Your task to perform on an android device: search for starred emails in the gmail app Image 0: 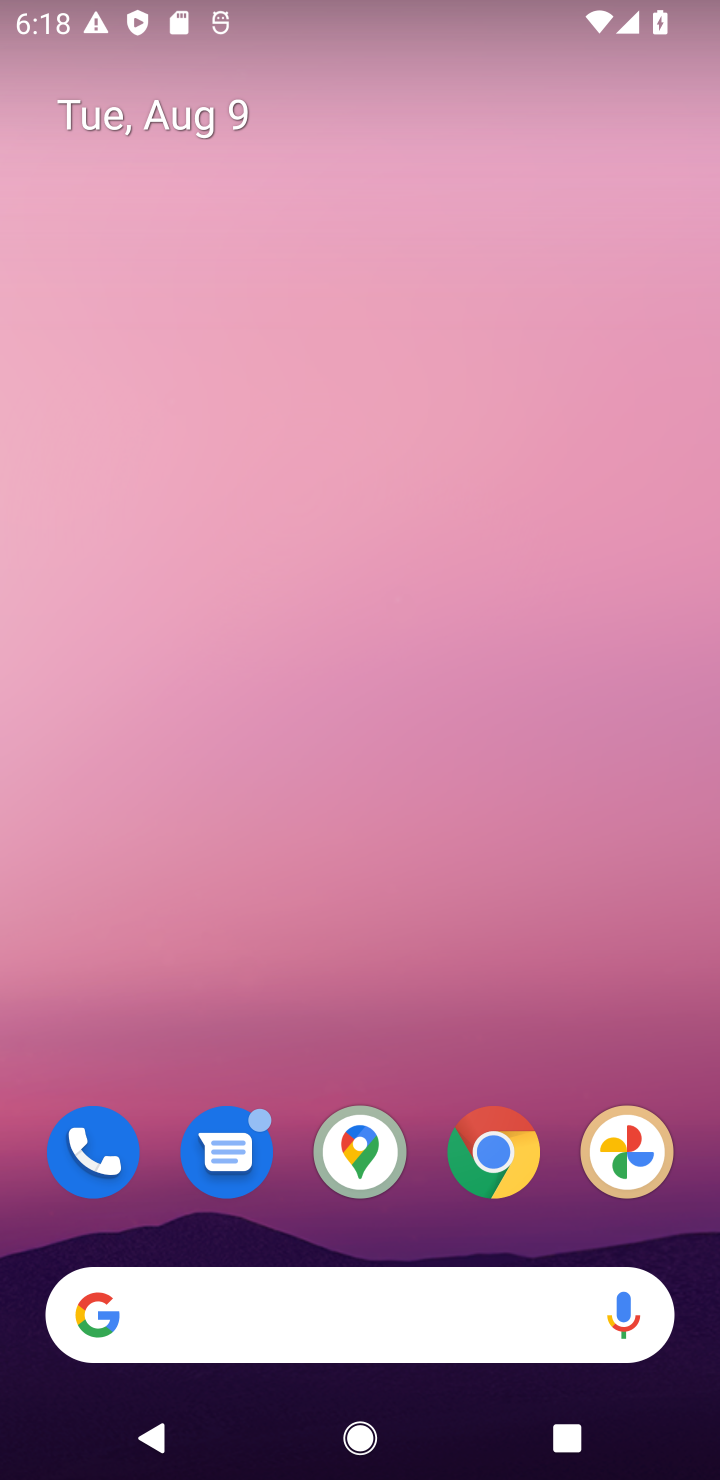
Step 0: drag from (412, 803) to (505, 6)
Your task to perform on an android device: search for starred emails in the gmail app Image 1: 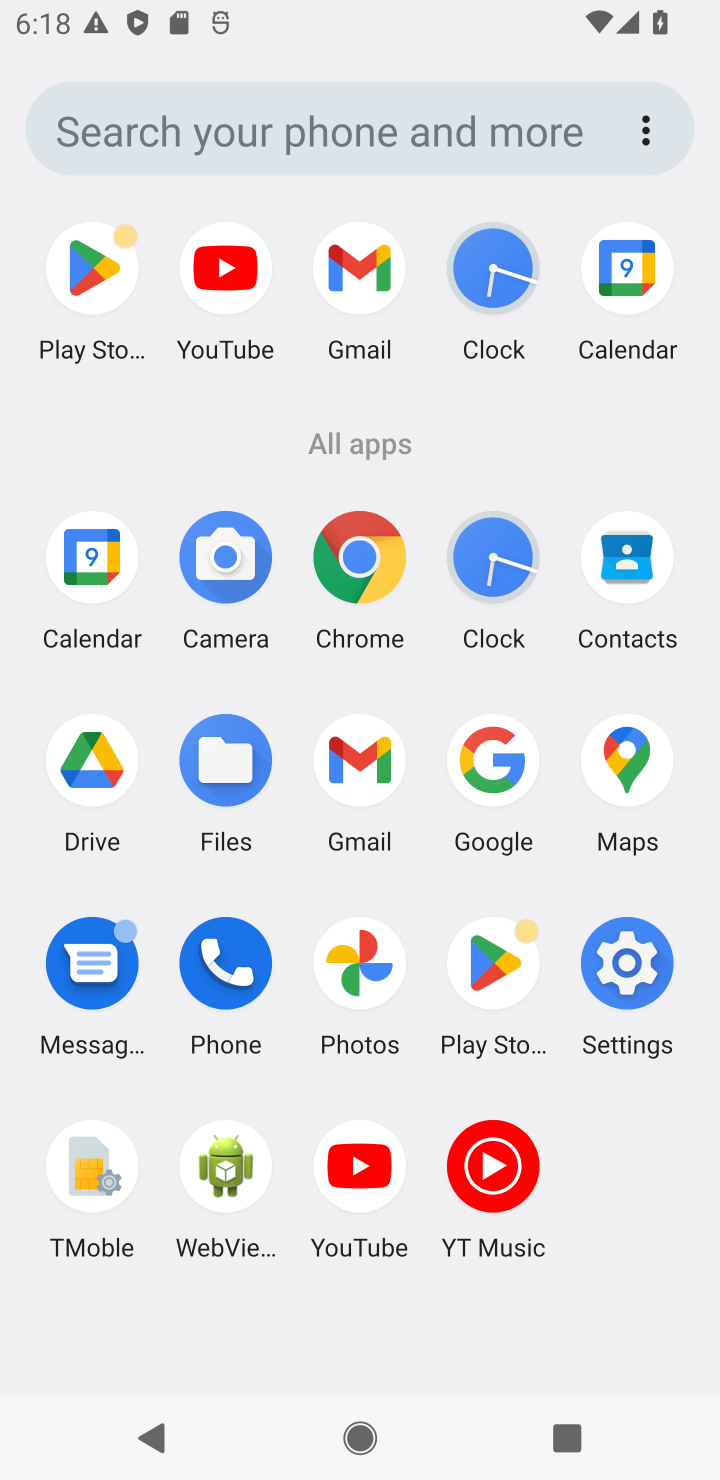
Step 1: click (381, 250)
Your task to perform on an android device: search for starred emails in the gmail app Image 2: 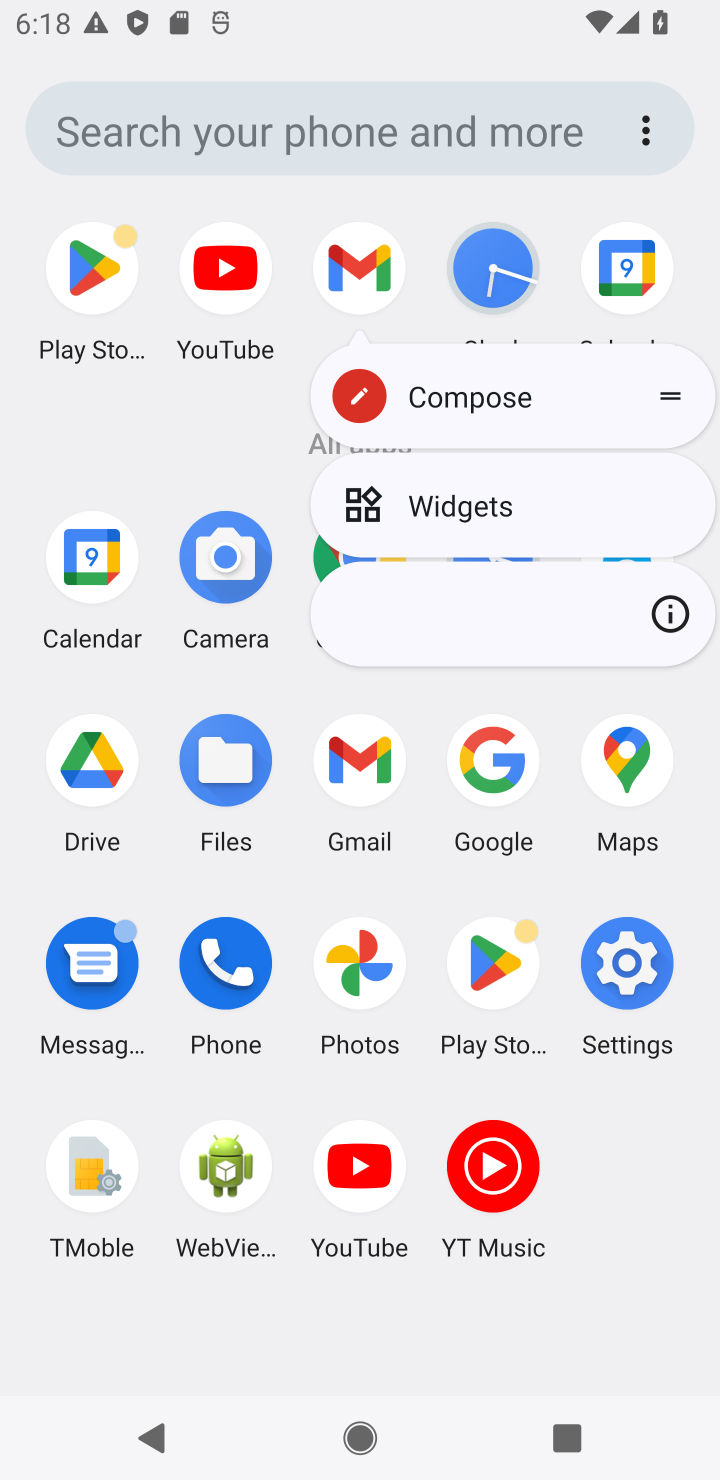
Step 2: click (369, 275)
Your task to perform on an android device: search for starred emails in the gmail app Image 3: 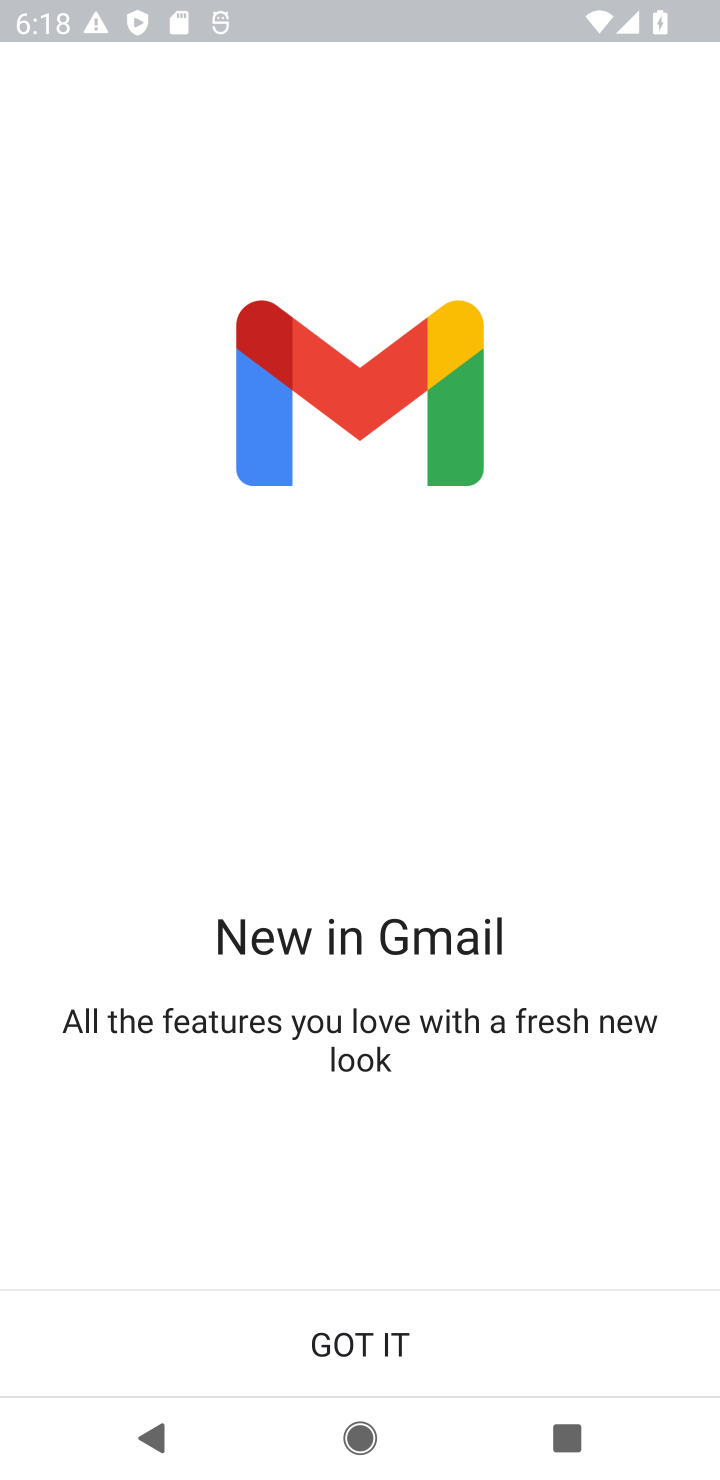
Step 3: click (355, 1355)
Your task to perform on an android device: search for starred emails in the gmail app Image 4: 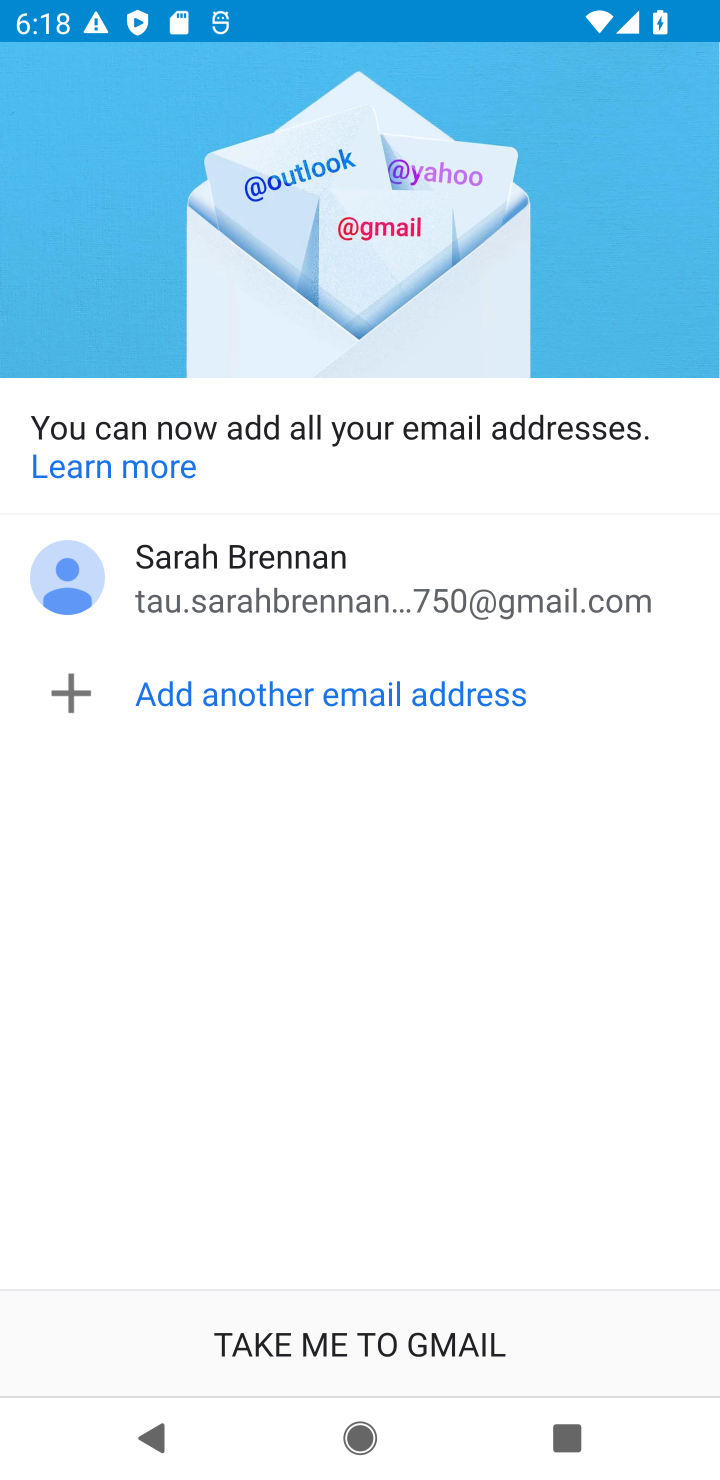
Step 4: click (392, 1308)
Your task to perform on an android device: search for starred emails in the gmail app Image 5: 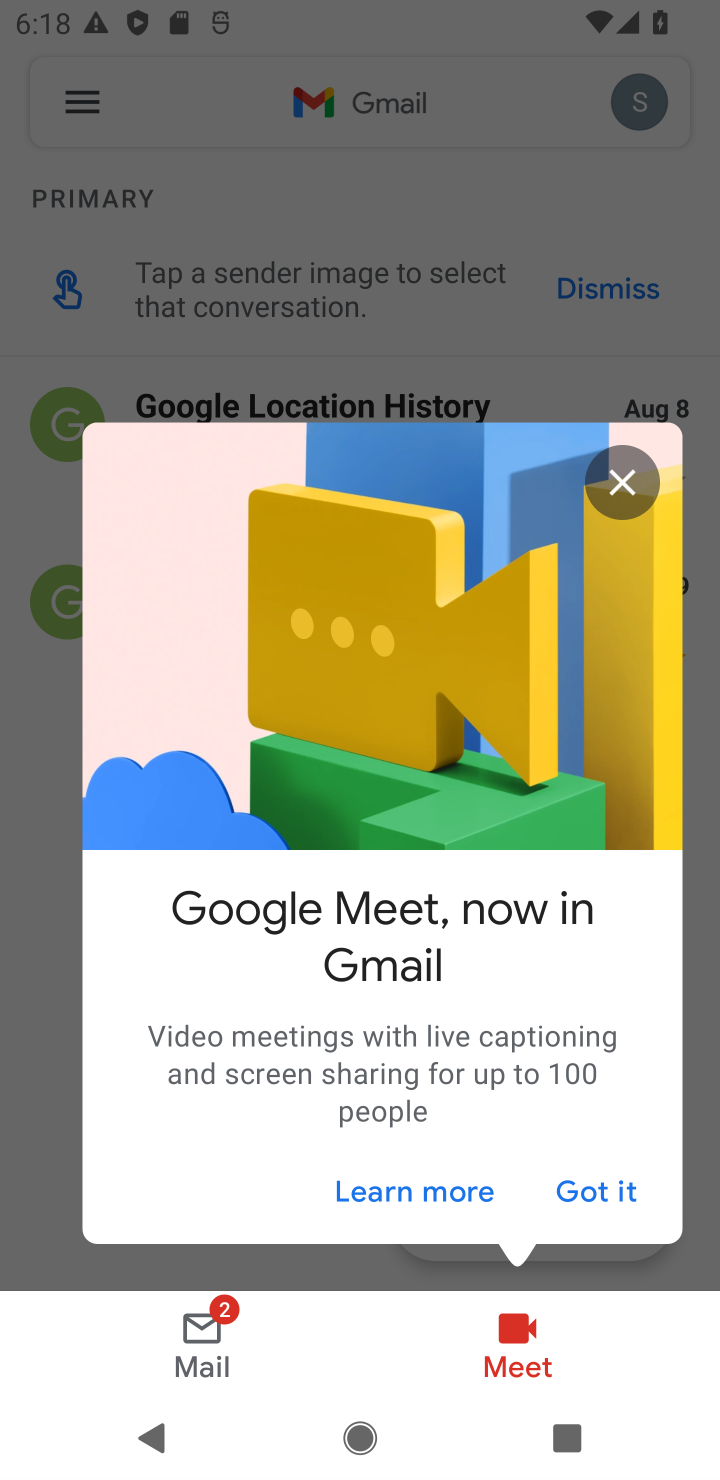
Step 5: click (606, 1197)
Your task to perform on an android device: search for starred emails in the gmail app Image 6: 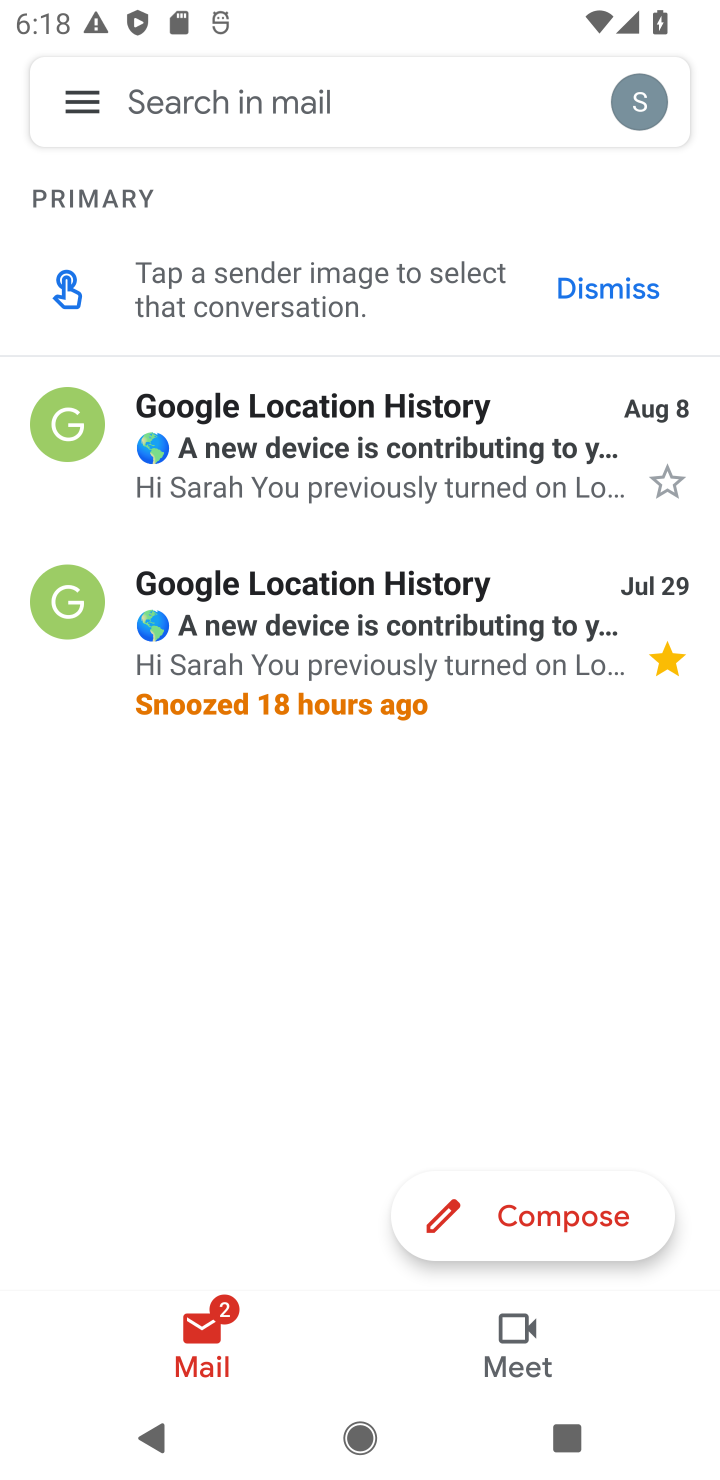
Step 6: click (79, 98)
Your task to perform on an android device: search for starred emails in the gmail app Image 7: 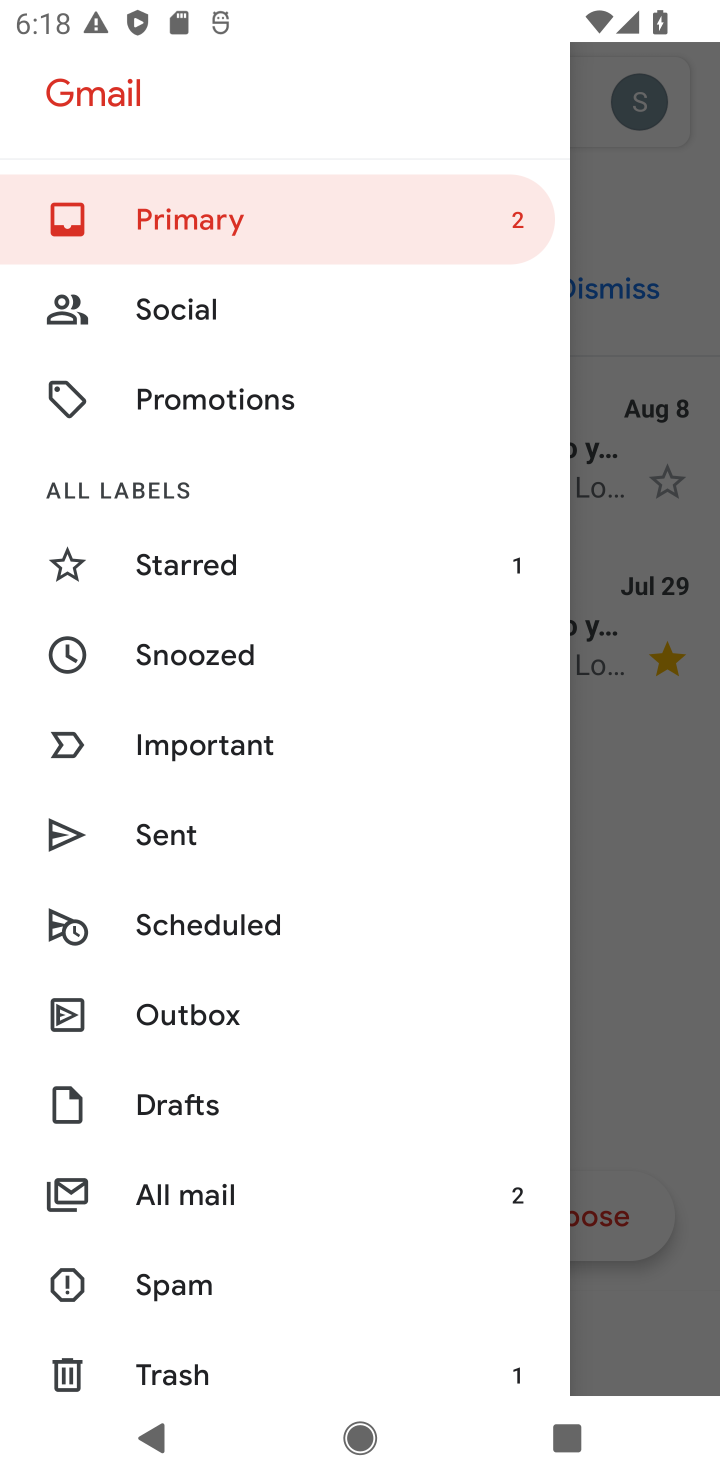
Step 7: click (234, 562)
Your task to perform on an android device: search for starred emails in the gmail app Image 8: 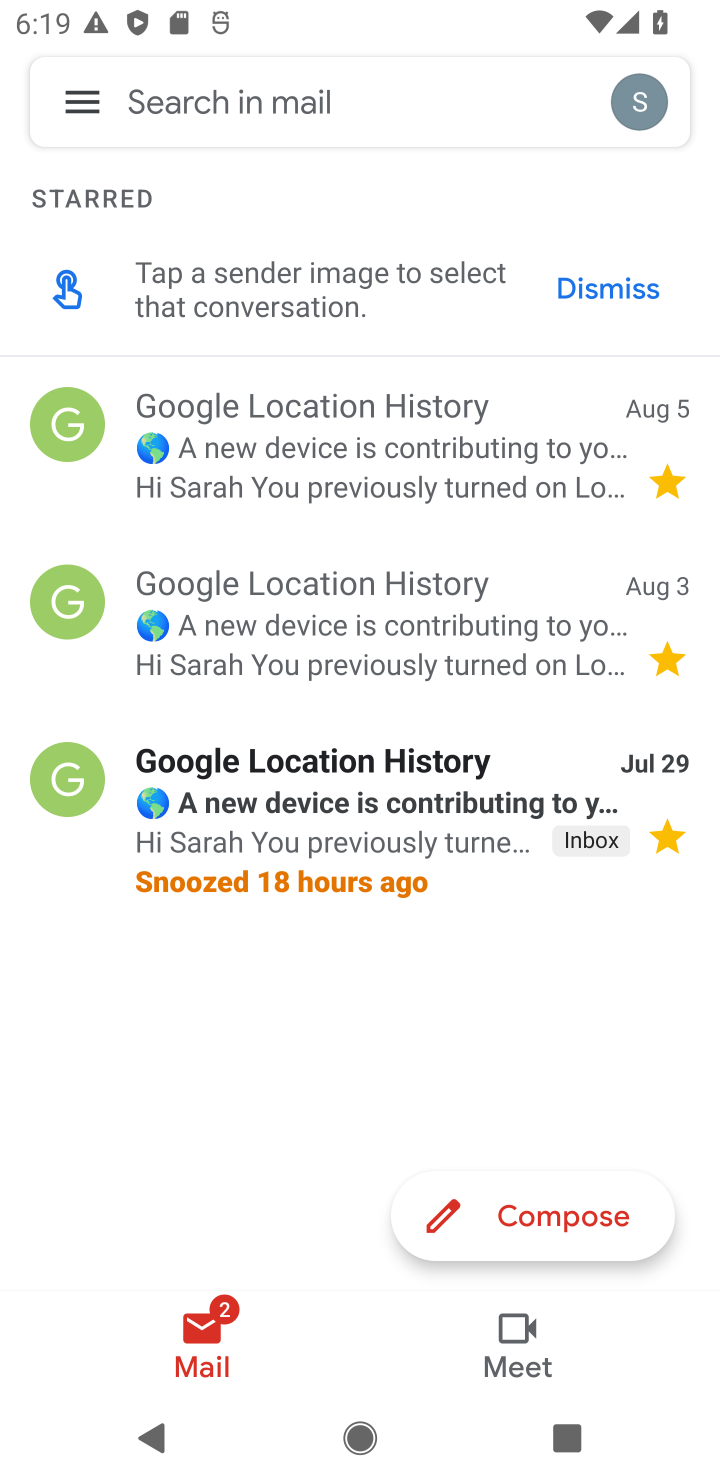
Step 8: task complete